Your task to perform on an android device: open app "Facebook Lite" (install if not already installed) and go to login screen Image 0: 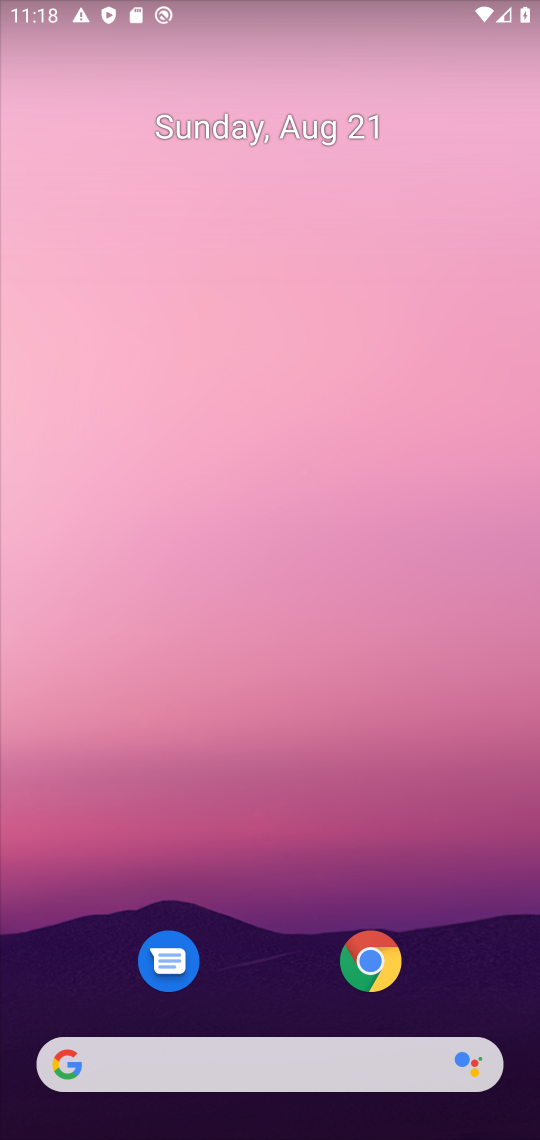
Step 0: press home button
Your task to perform on an android device: open app "Facebook Lite" (install if not already installed) and go to login screen Image 1: 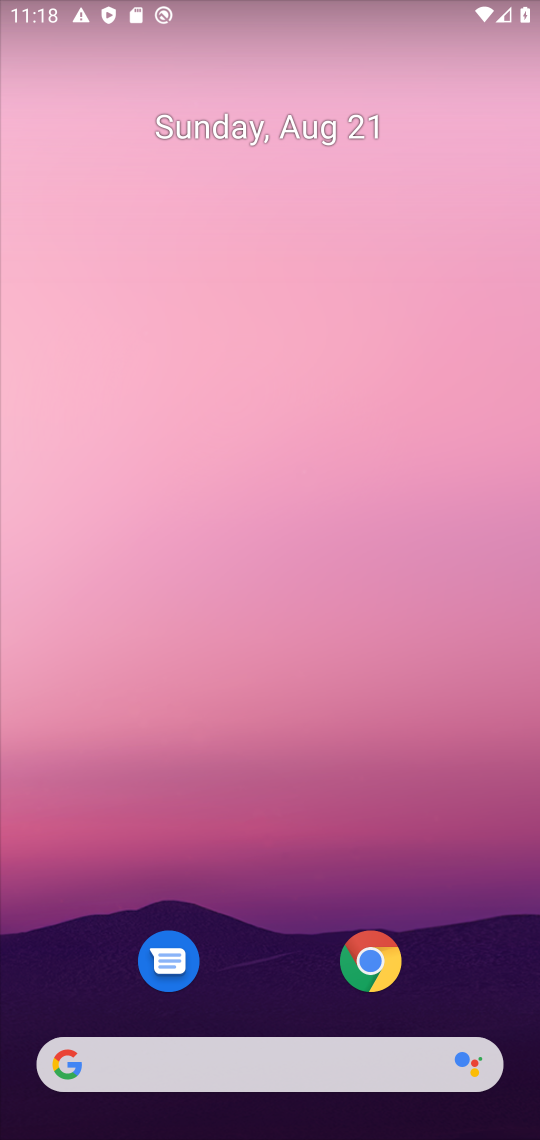
Step 1: drag from (488, 956) to (487, 129)
Your task to perform on an android device: open app "Facebook Lite" (install if not already installed) and go to login screen Image 2: 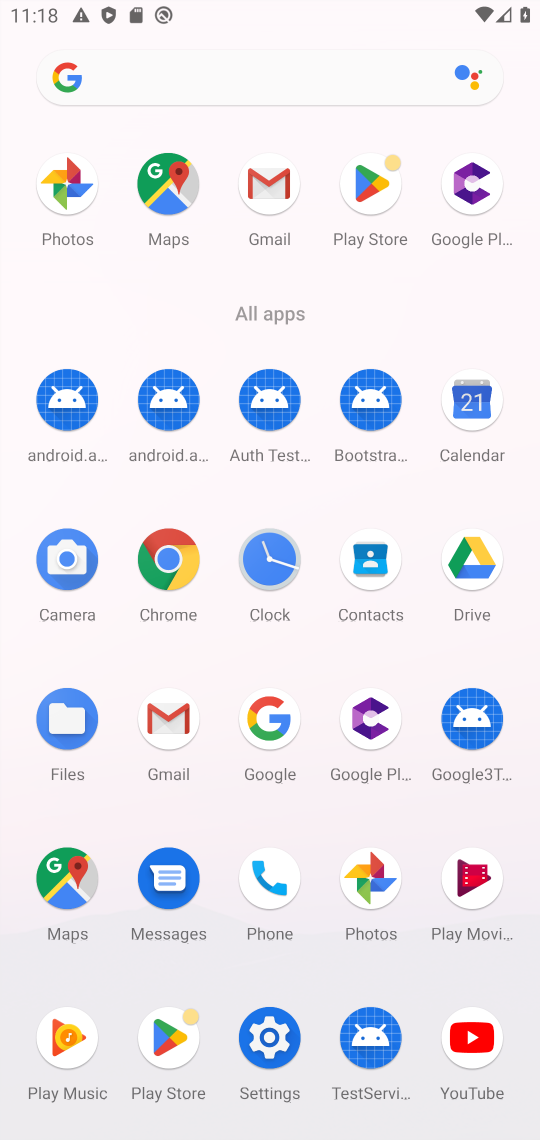
Step 2: click (370, 179)
Your task to perform on an android device: open app "Facebook Lite" (install if not already installed) and go to login screen Image 3: 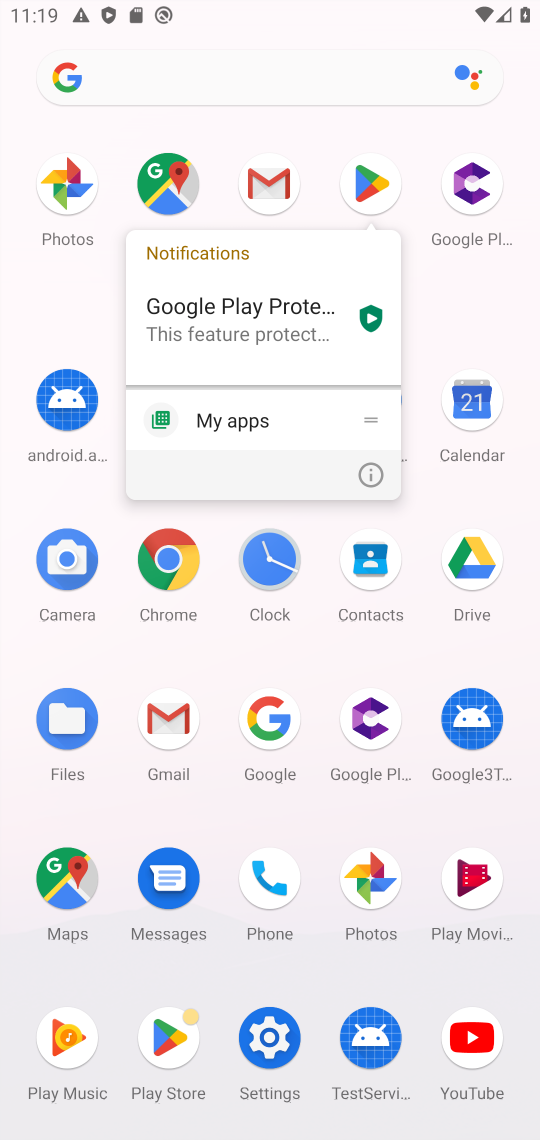
Step 3: click (366, 180)
Your task to perform on an android device: open app "Facebook Lite" (install if not already installed) and go to login screen Image 4: 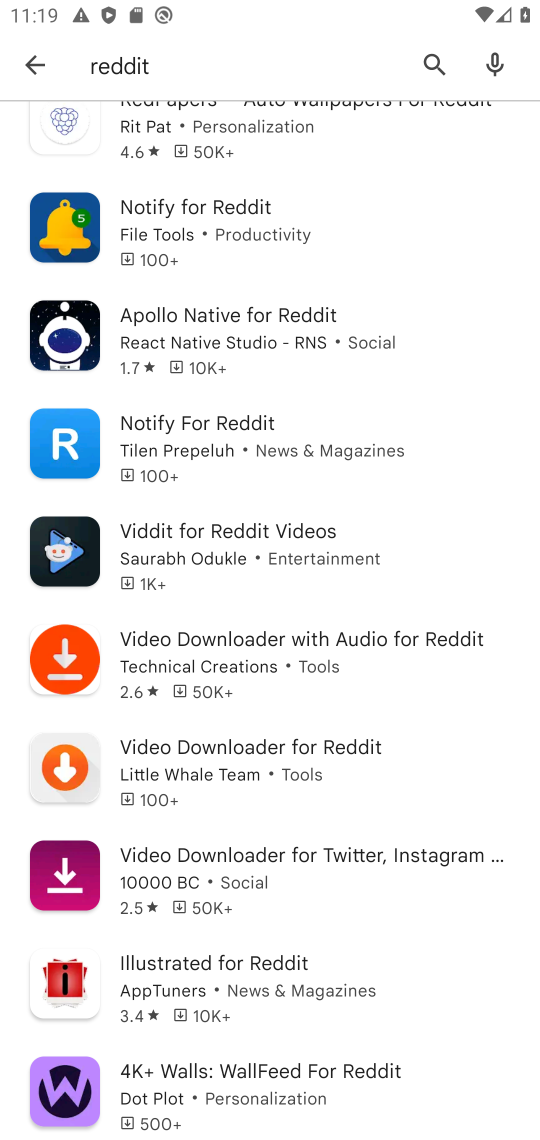
Step 4: press back button
Your task to perform on an android device: open app "Facebook Lite" (install if not already installed) and go to login screen Image 5: 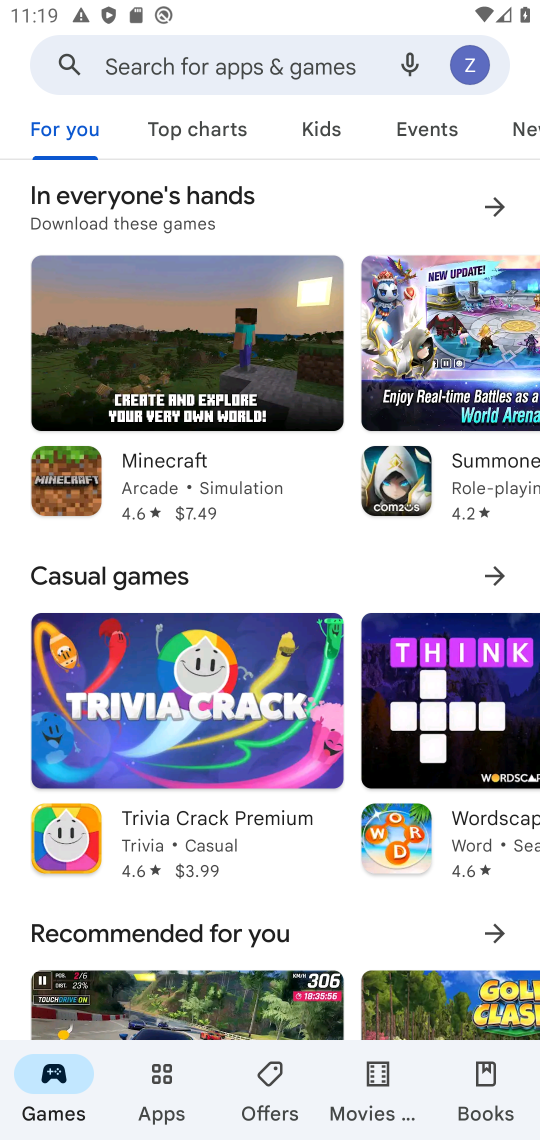
Step 5: click (242, 61)
Your task to perform on an android device: open app "Facebook Lite" (install if not already installed) and go to login screen Image 6: 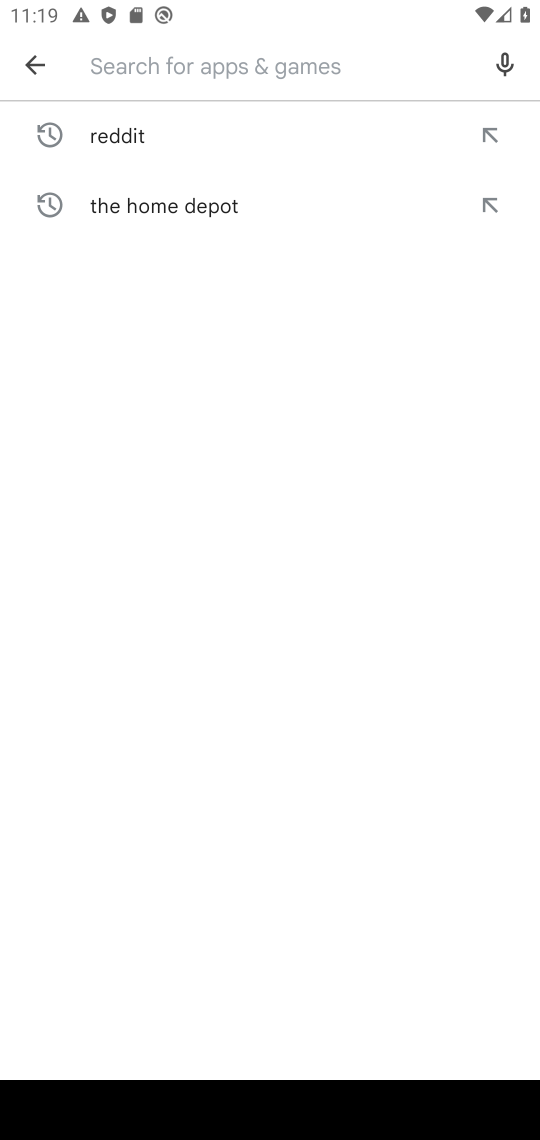
Step 6: type "facebook lite"
Your task to perform on an android device: open app "Facebook Lite" (install if not already installed) and go to login screen Image 7: 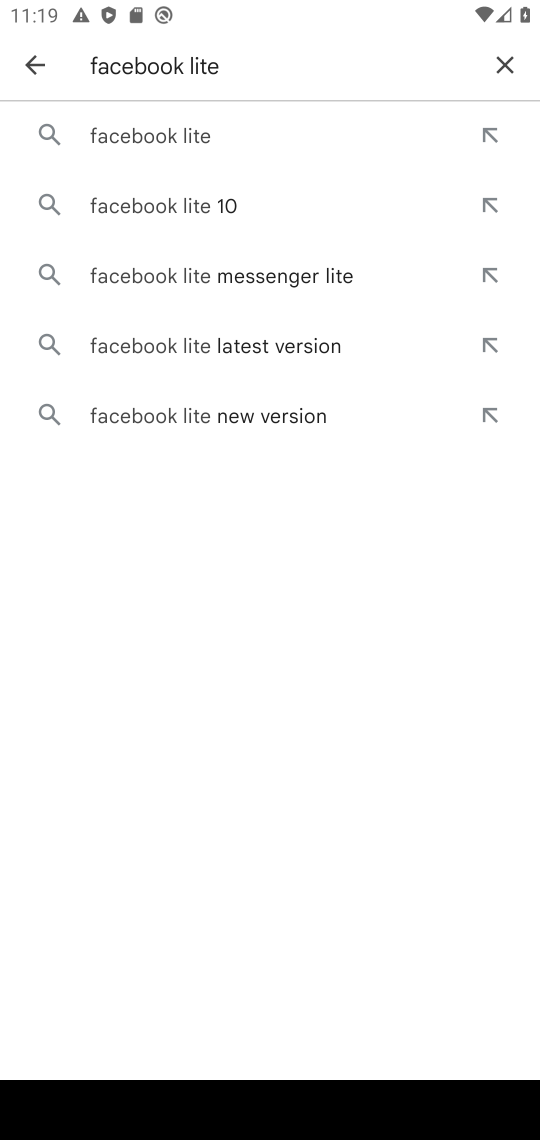
Step 7: click (249, 131)
Your task to perform on an android device: open app "Facebook Lite" (install if not already installed) and go to login screen Image 8: 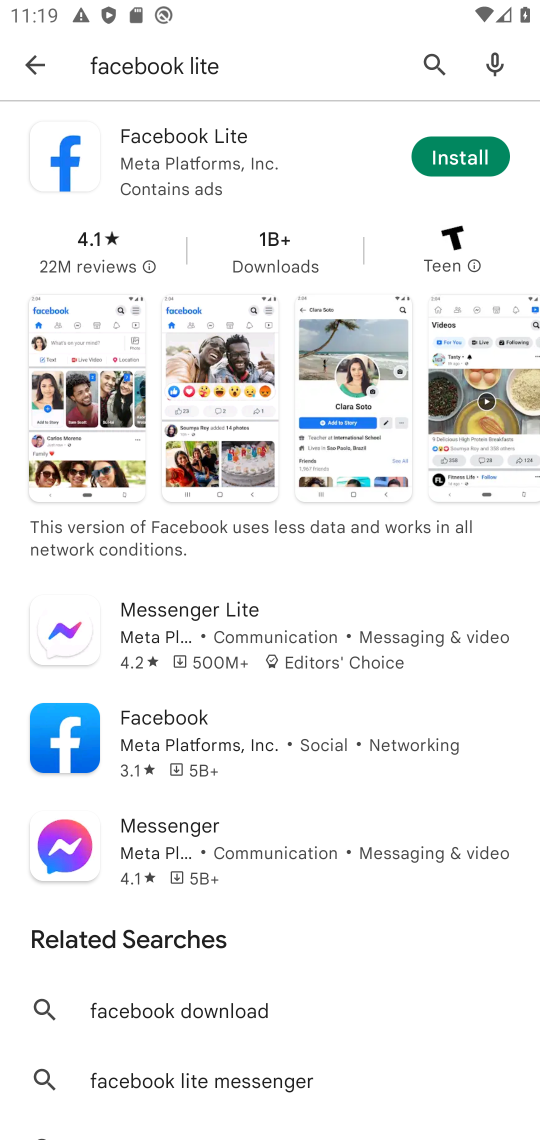
Step 8: click (467, 151)
Your task to perform on an android device: open app "Facebook Lite" (install if not already installed) and go to login screen Image 9: 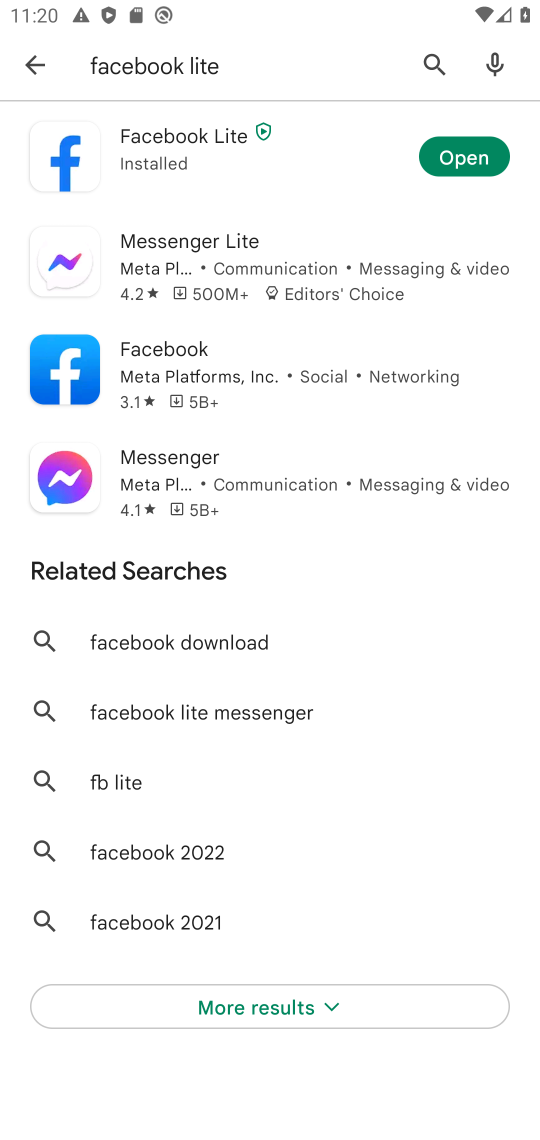
Step 9: click (460, 151)
Your task to perform on an android device: open app "Facebook Lite" (install if not already installed) and go to login screen Image 10: 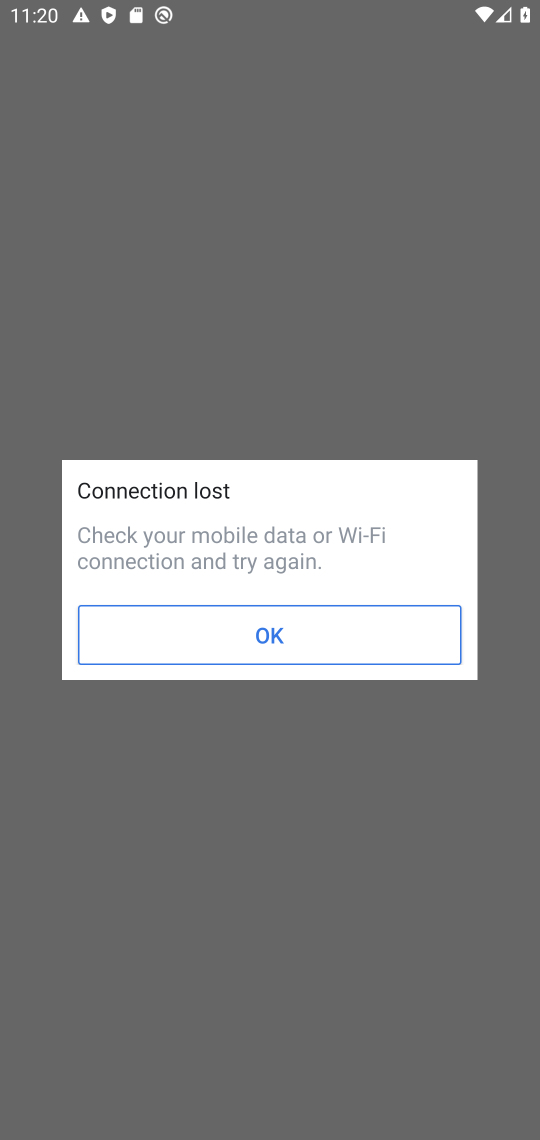
Step 10: task complete